Your task to perform on an android device: Is it going to rain tomorrow? Image 0: 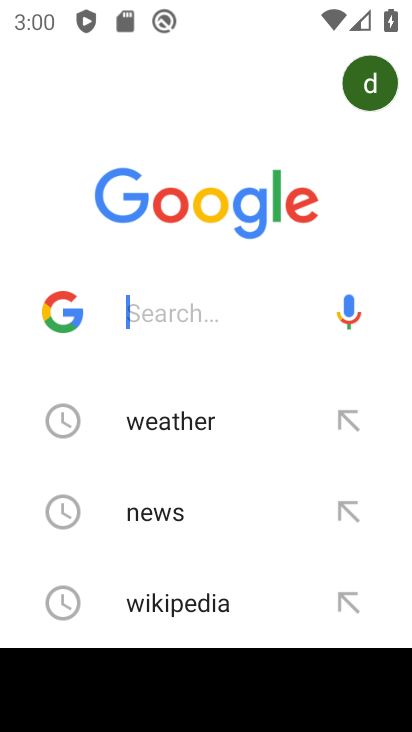
Step 0: press home button
Your task to perform on an android device: Is it going to rain tomorrow? Image 1: 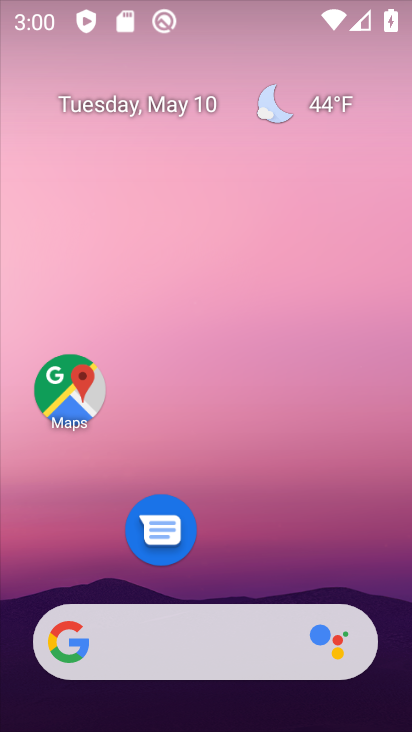
Step 1: drag from (246, 568) to (286, 85)
Your task to perform on an android device: Is it going to rain tomorrow? Image 2: 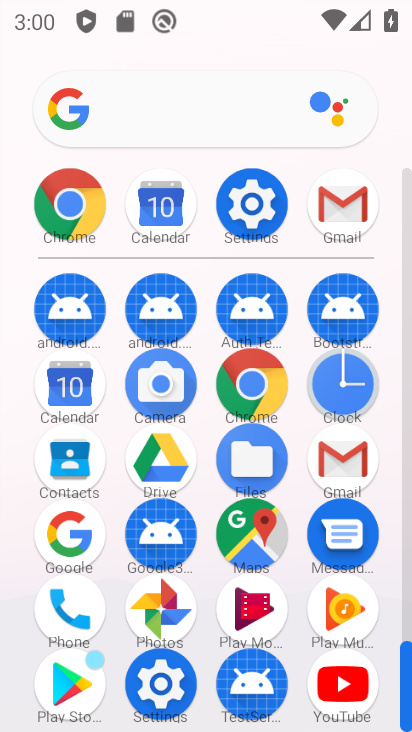
Step 2: click (72, 542)
Your task to perform on an android device: Is it going to rain tomorrow? Image 3: 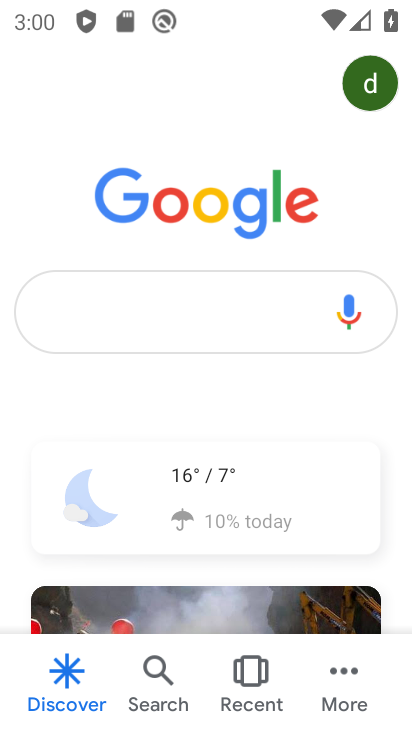
Step 3: click (171, 314)
Your task to perform on an android device: Is it going to rain tomorrow? Image 4: 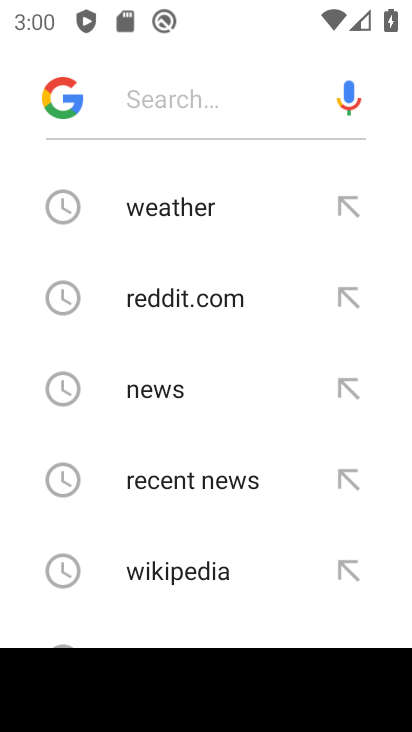
Step 4: type "is it going to rain tomorrow"
Your task to perform on an android device: Is it going to rain tomorrow? Image 5: 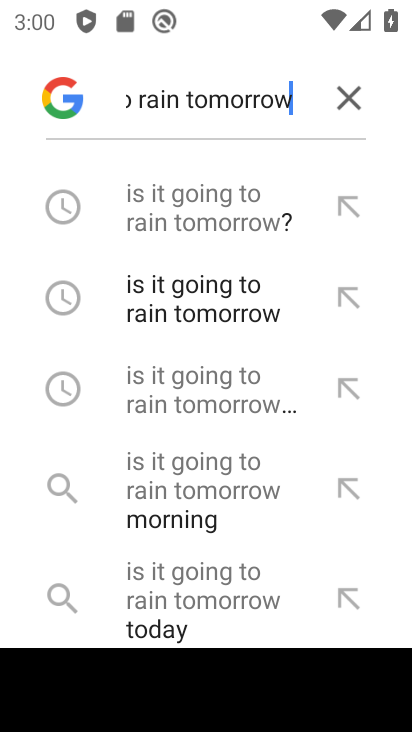
Step 5: click (237, 213)
Your task to perform on an android device: Is it going to rain tomorrow? Image 6: 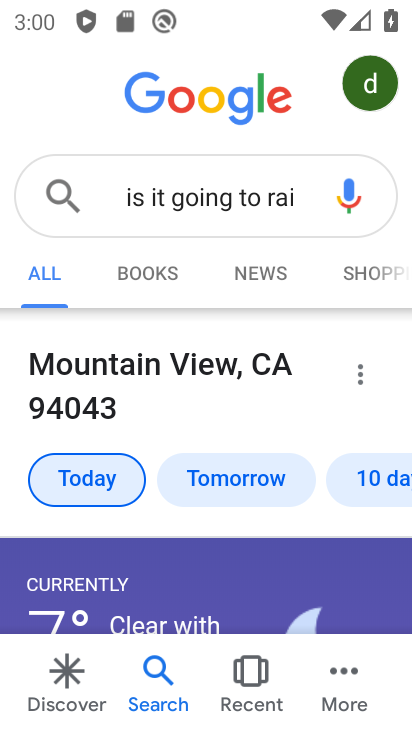
Step 6: task complete